Your task to perform on an android device: open app "DuckDuckGo Privacy Browser" Image 0: 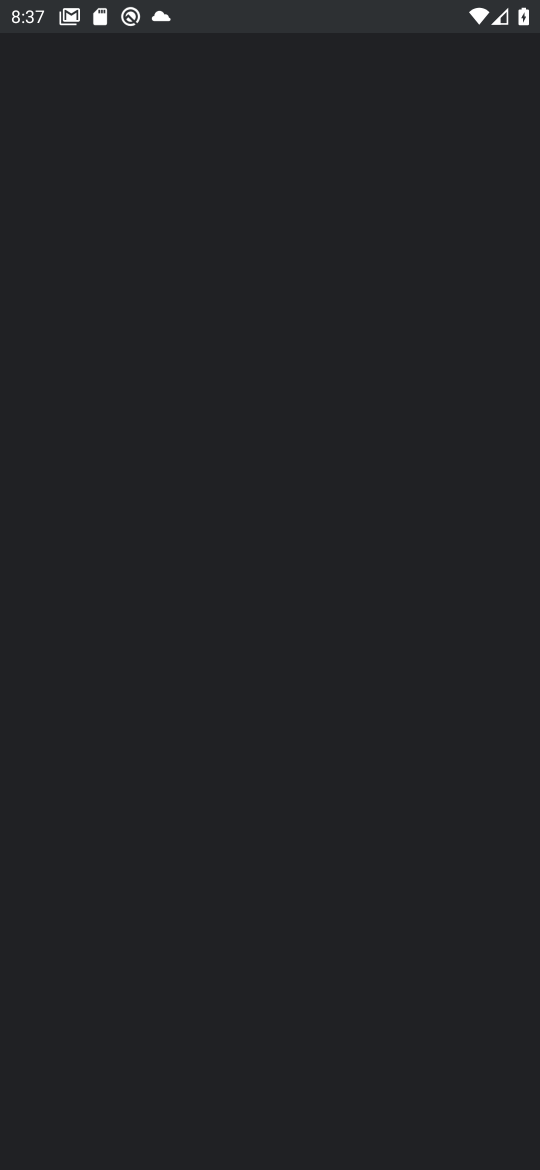
Step 0: press home button
Your task to perform on an android device: open app "DuckDuckGo Privacy Browser" Image 1: 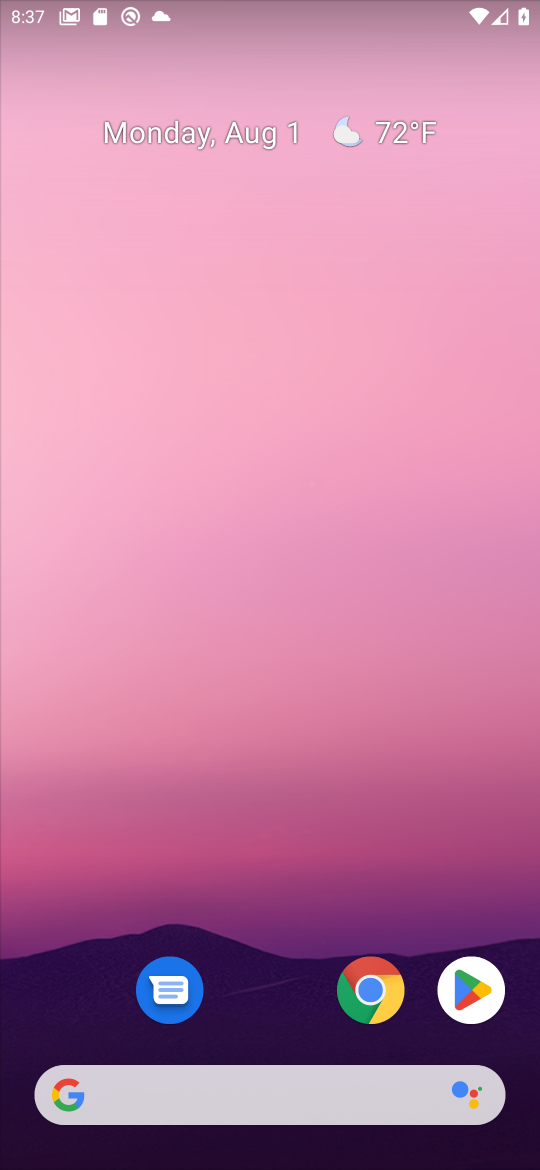
Step 1: click (465, 979)
Your task to perform on an android device: open app "DuckDuckGo Privacy Browser" Image 2: 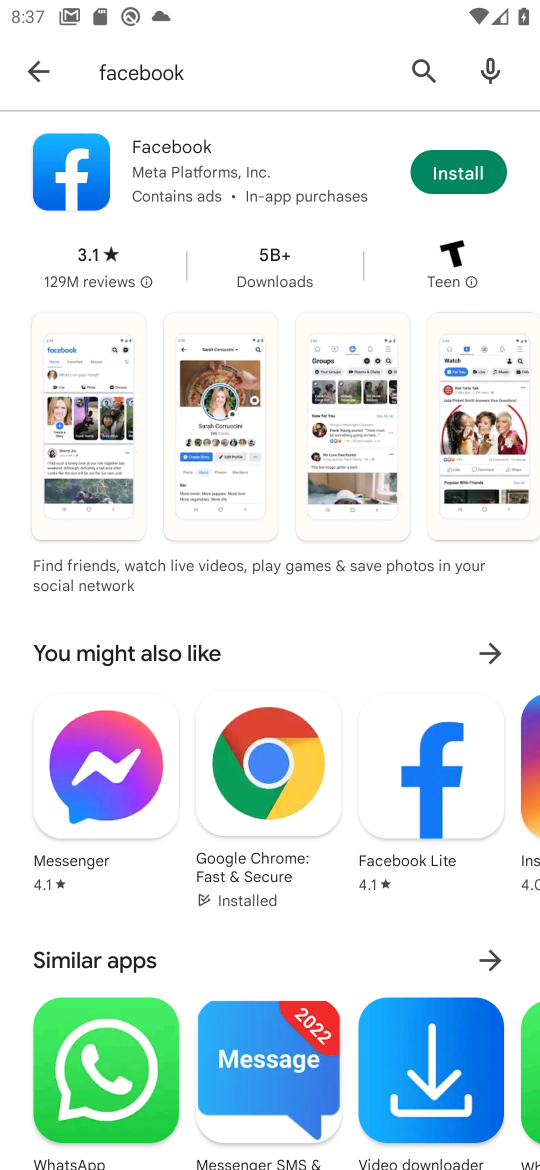
Step 2: click (418, 61)
Your task to perform on an android device: open app "DuckDuckGo Privacy Browser" Image 3: 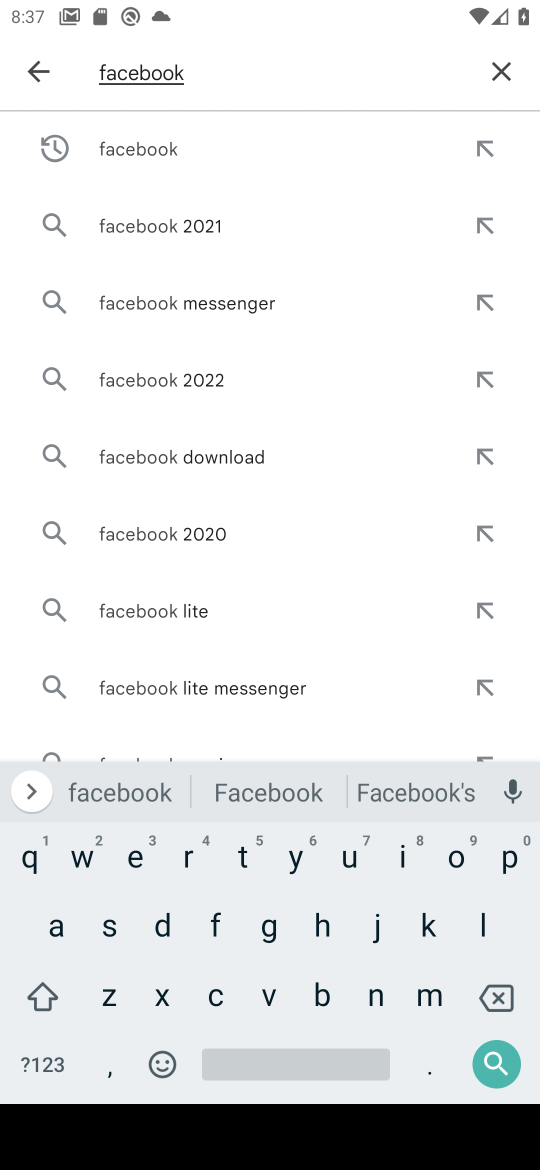
Step 3: click (497, 69)
Your task to perform on an android device: open app "DuckDuckGo Privacy Browser" Image 4: 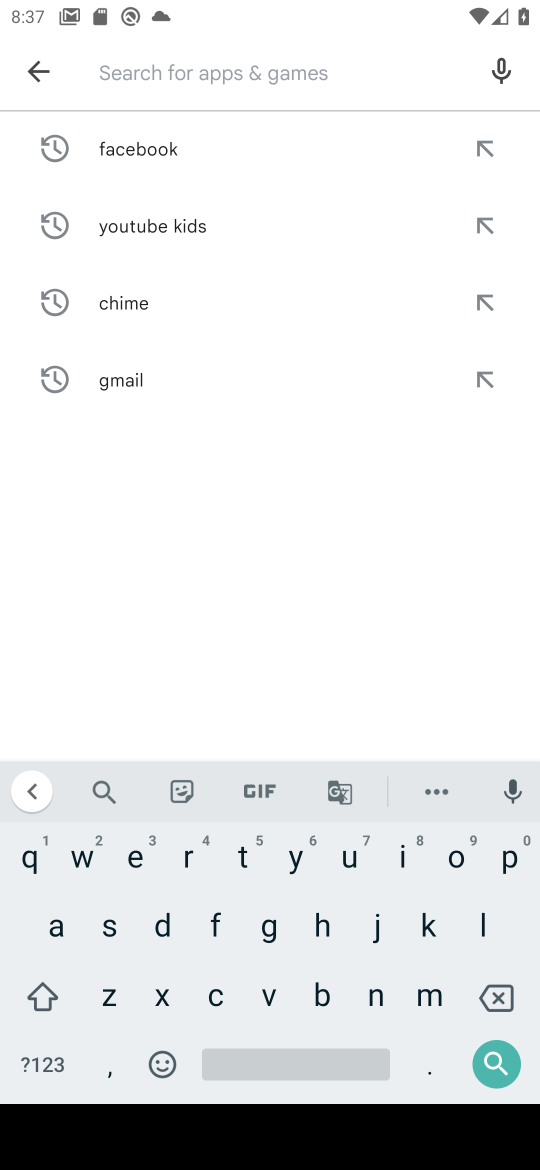
Step 4: click (154, 911)
Your task to perform on an android device: open app "DuckDuckGo Privacy Browser" Image 5: 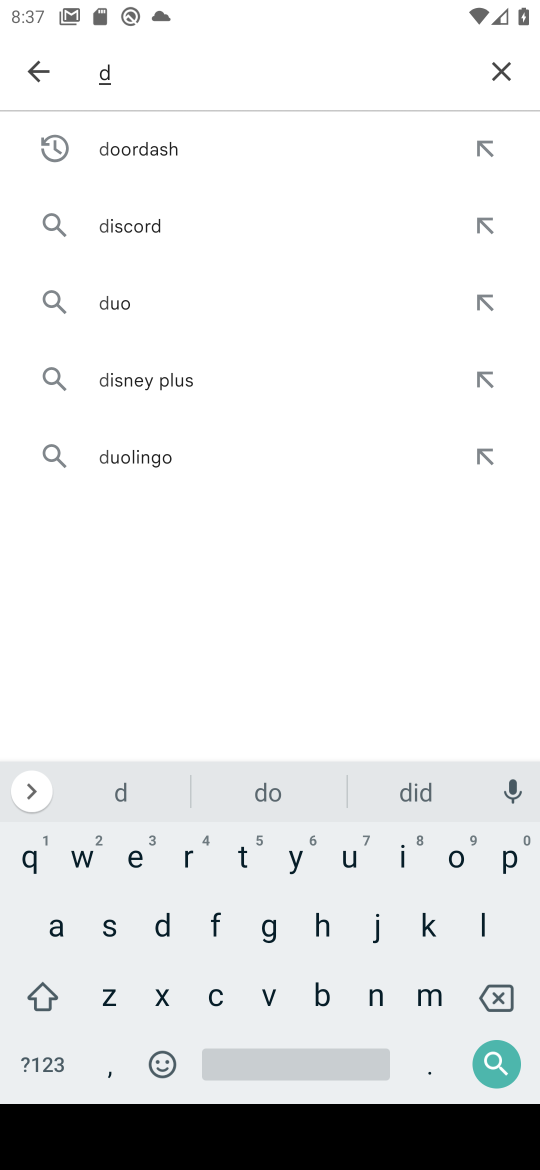
Step 5: click (359, 847)
Your task to perform on an android device: open app "DuckDuckGo Privacy Browser" Image 6: 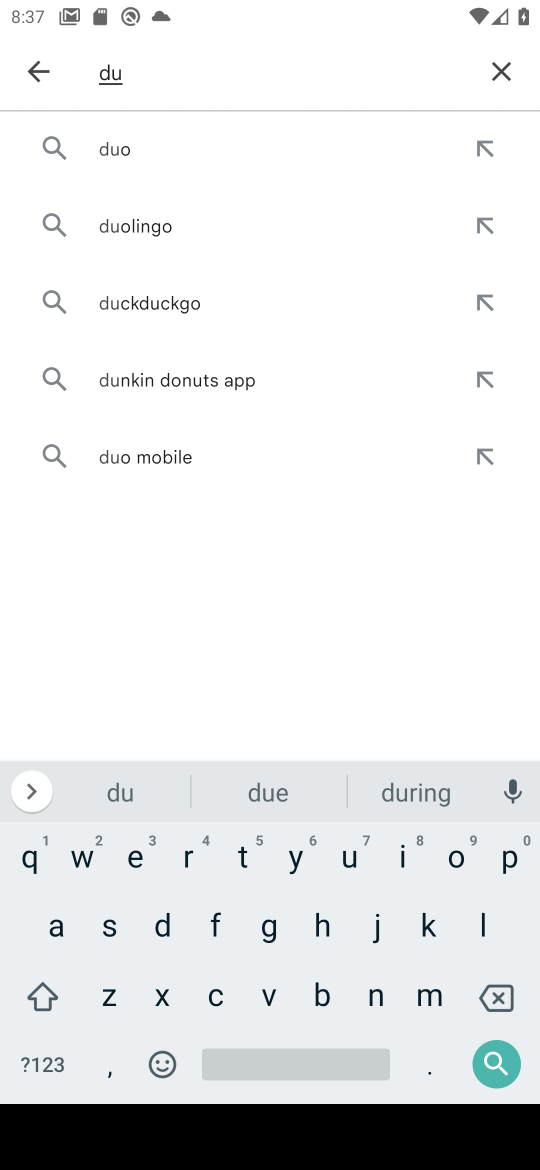
Step 6: click (129, 303)
Your task to perform on an android device: open app "DuckDuckGo Privacy Browser" Image 7: 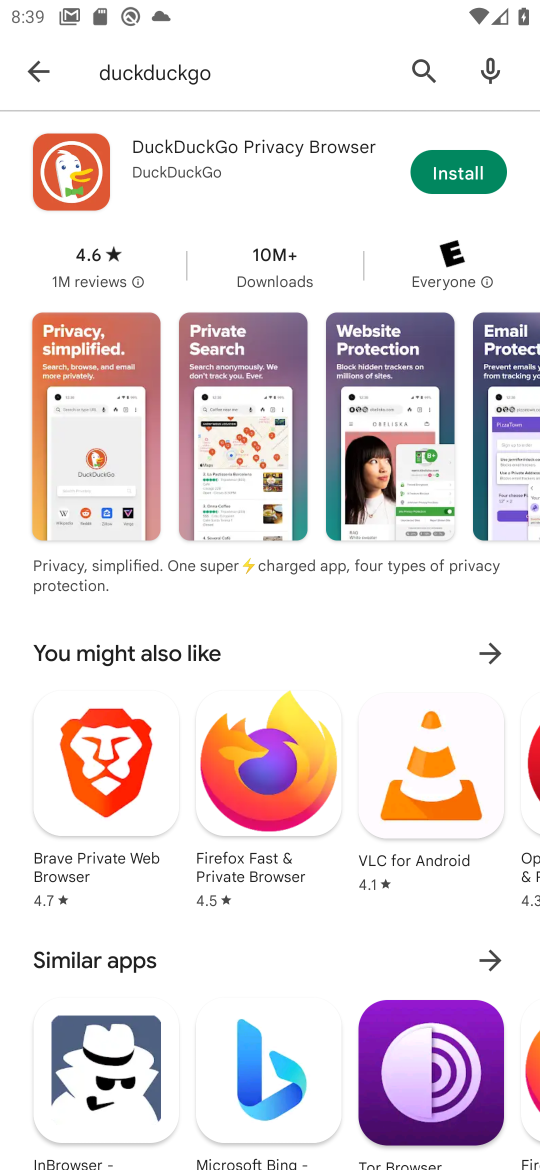
Step 7: task complete